Your task to perform on an android device: open app "Nova Launcher" (install if not already installed) Image 0: 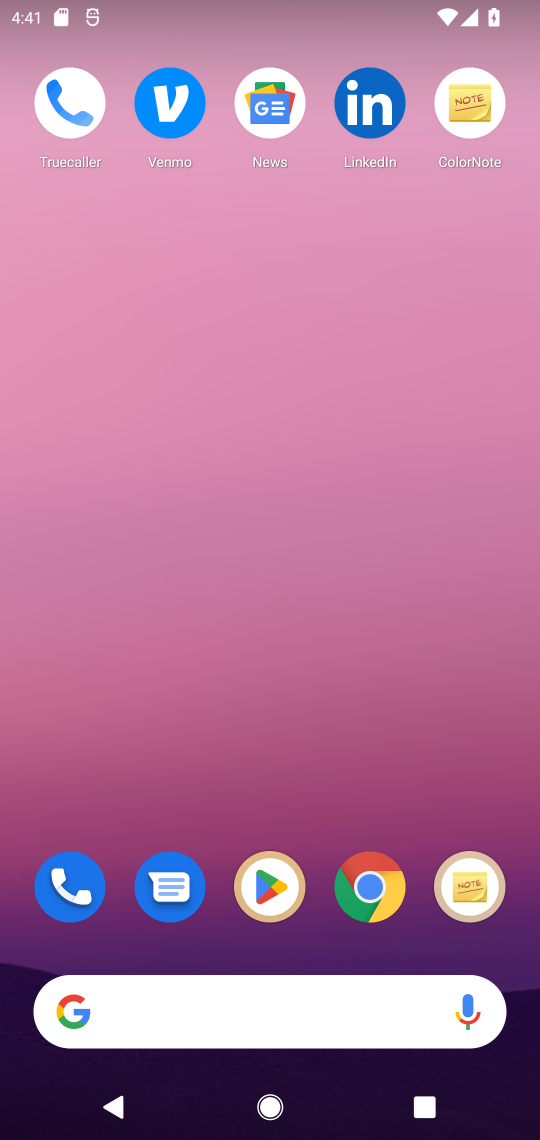
Step 0: click (262, 890)
Your task to perform on an android device: open app "Nova Launcher" (install if not already installed) Image 1: 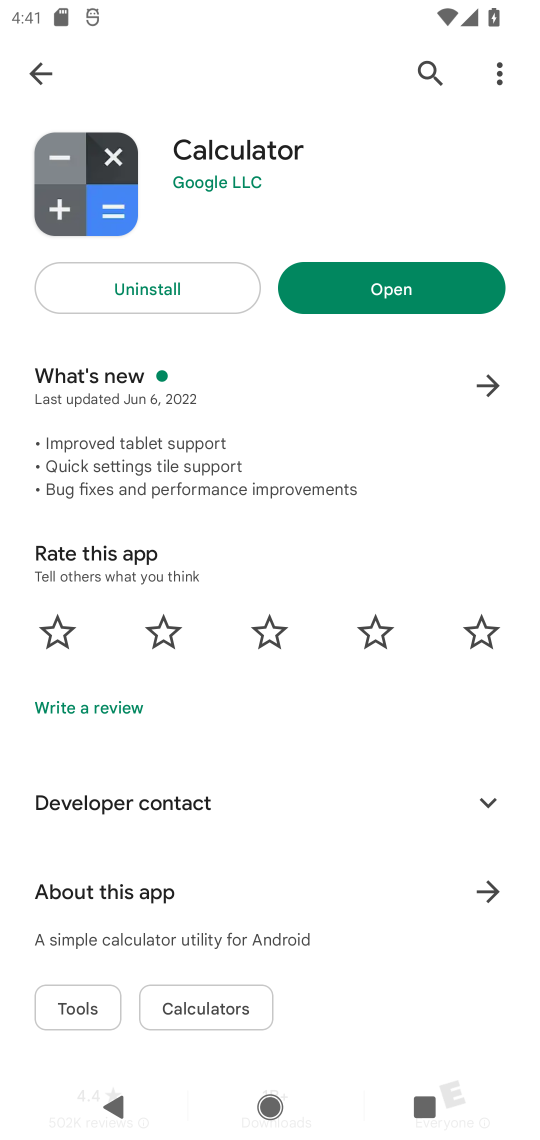
Step 1: click (44, 71)
Your task to perform on an android device: open app "Nova Launcher" (install if not already installed) Image 2: 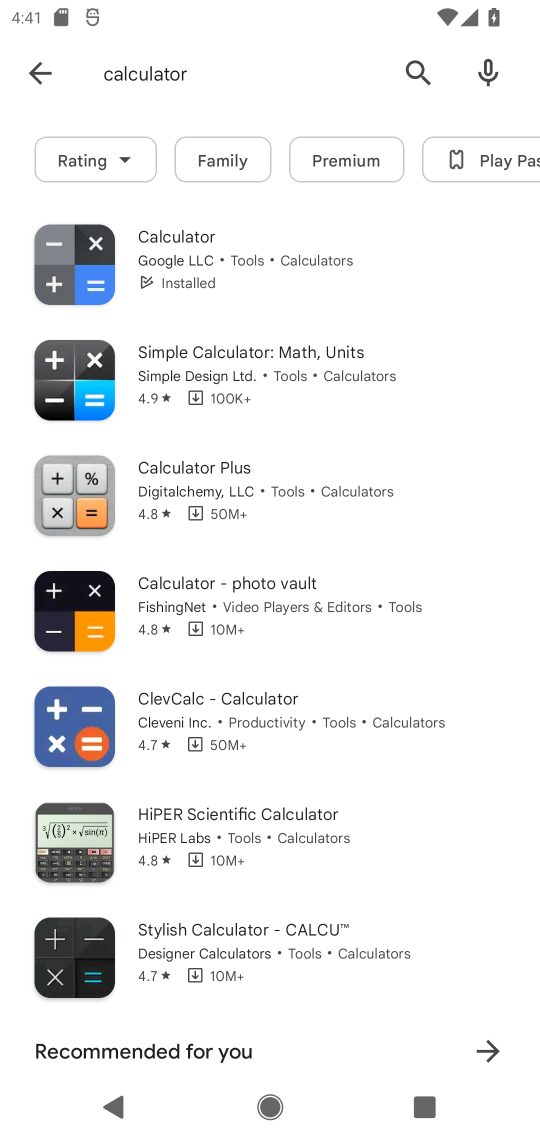
Step 2: click (44, 71)
Your task to perform on an android device: open app "Nova Launcher" (install if not already installed) Image 3: 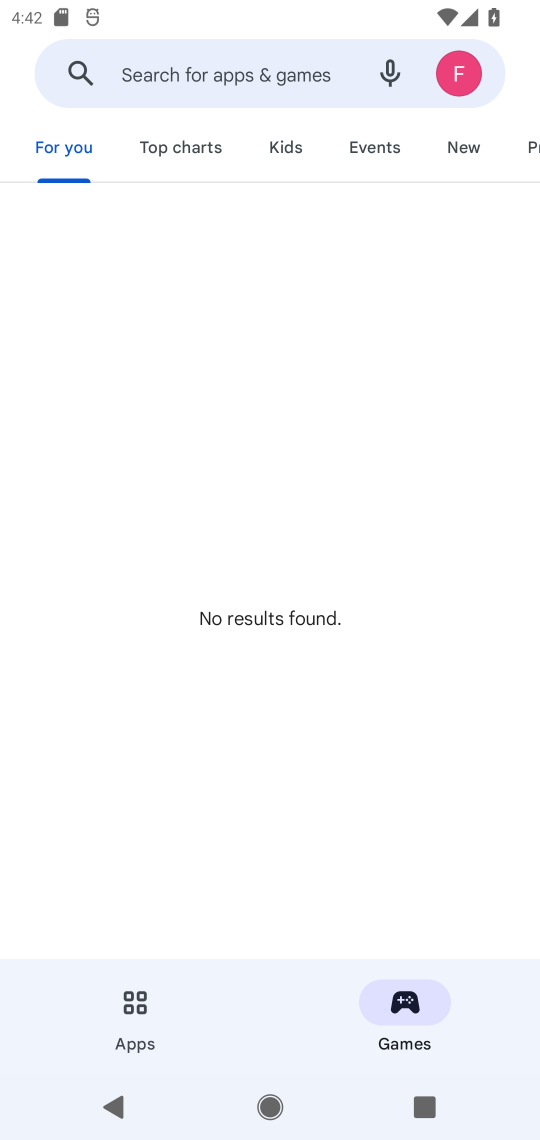
Step 3: click (229, 49)
Your task to perform on an android device: open app "Nova Launcher" (install if not already installed) Image 4: 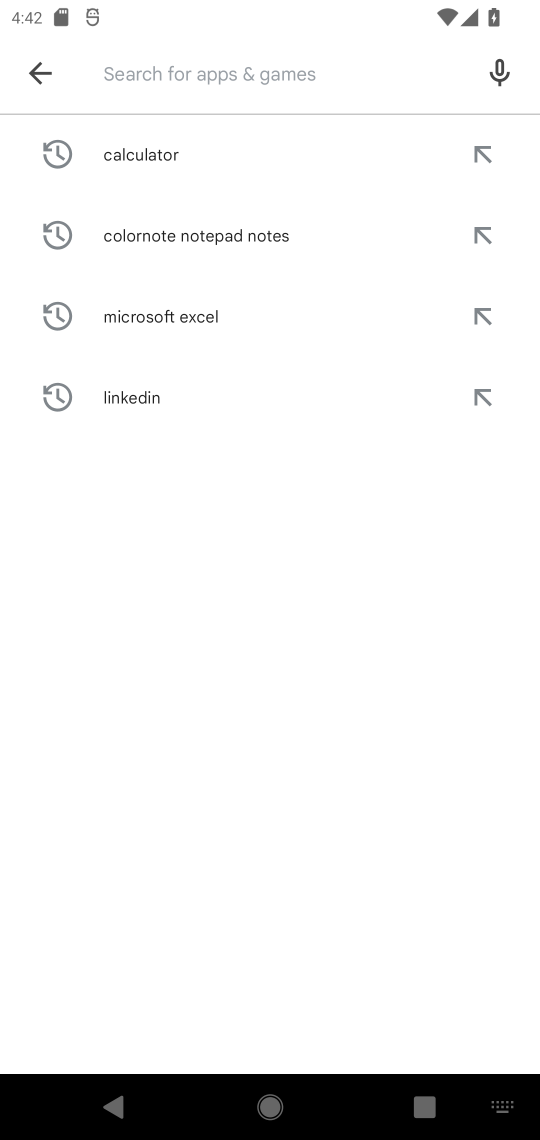
Step 4: type "Nova Launcher"
Your task to perform on an android device: open app "Nova Launcher" (install if not already installed) Image 5: 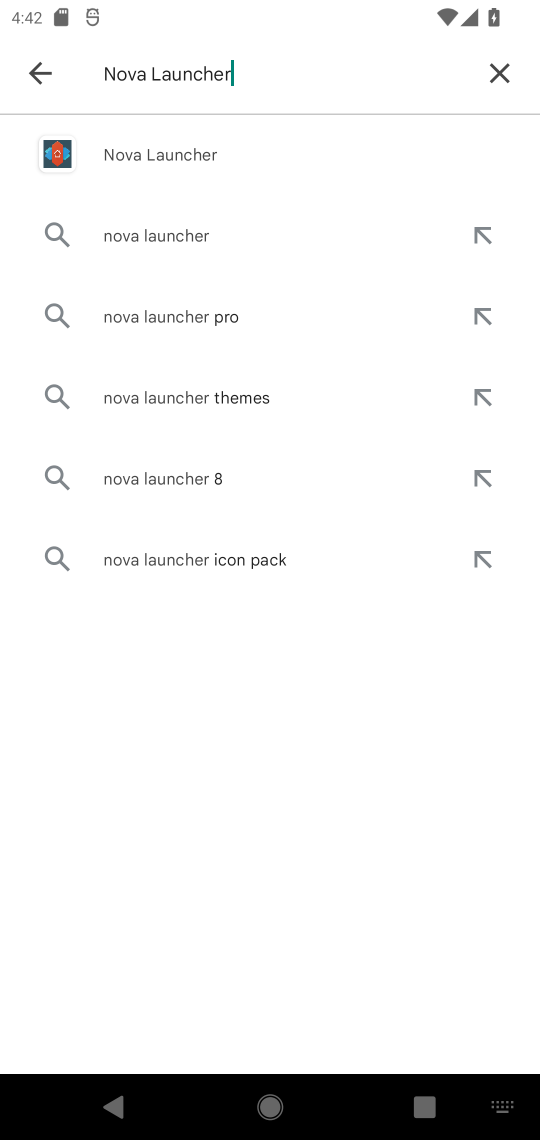
Step 5: click (171, 154)
Your task to perform on an android device: open app "Nova Launcher" (install if not already installed) Image 6: 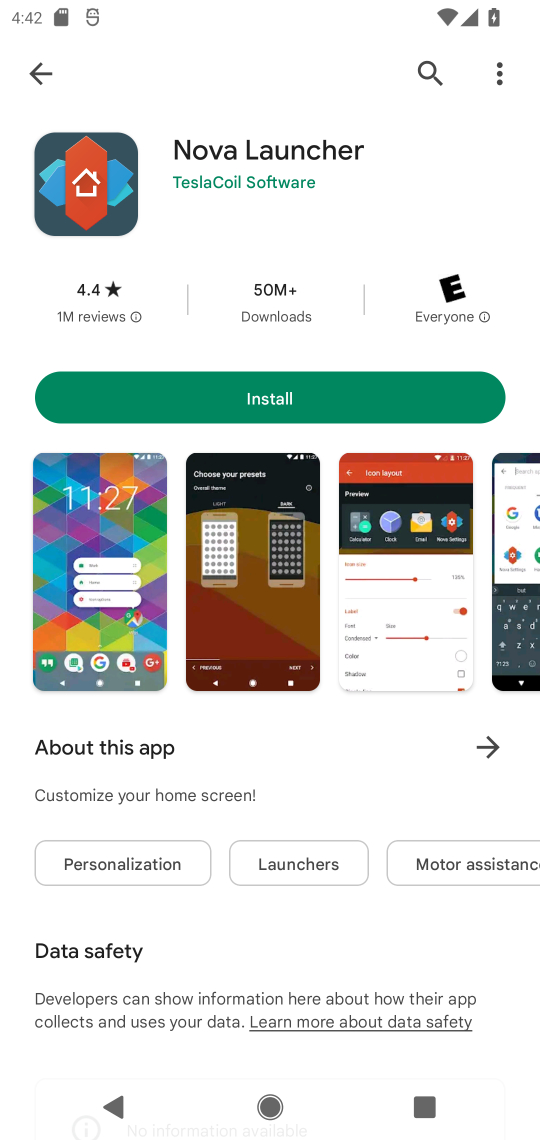
Step 6: click (253, 389)
Your task to perform on an android device: open app "Nova Launcher" (install if not already installed) Image 7: 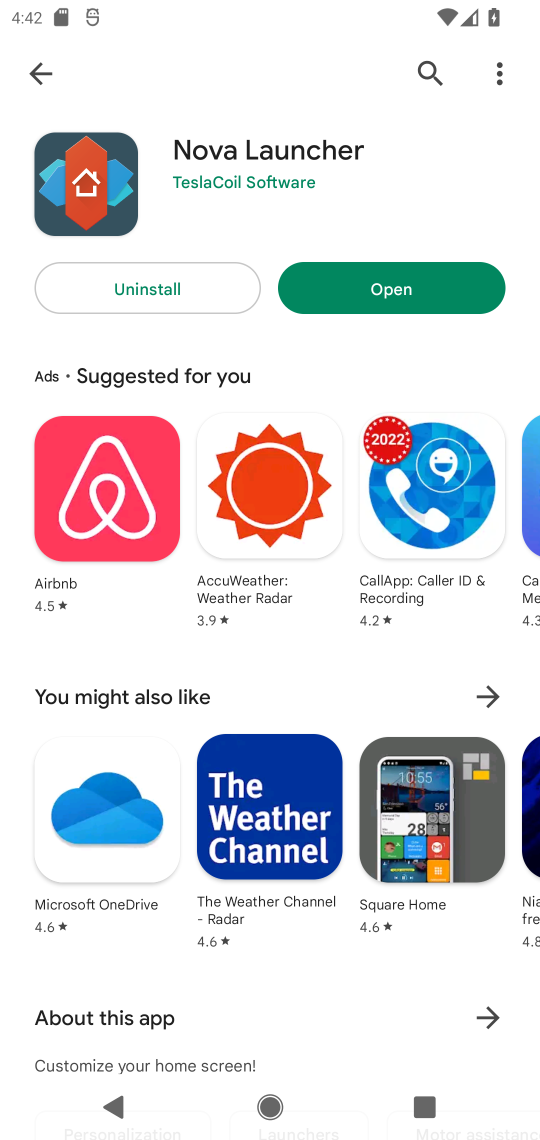
Step 7: click (377, 295)
Your task to perform on an android device: open app "Nova Launcher" (install if not already installed) Image 8: 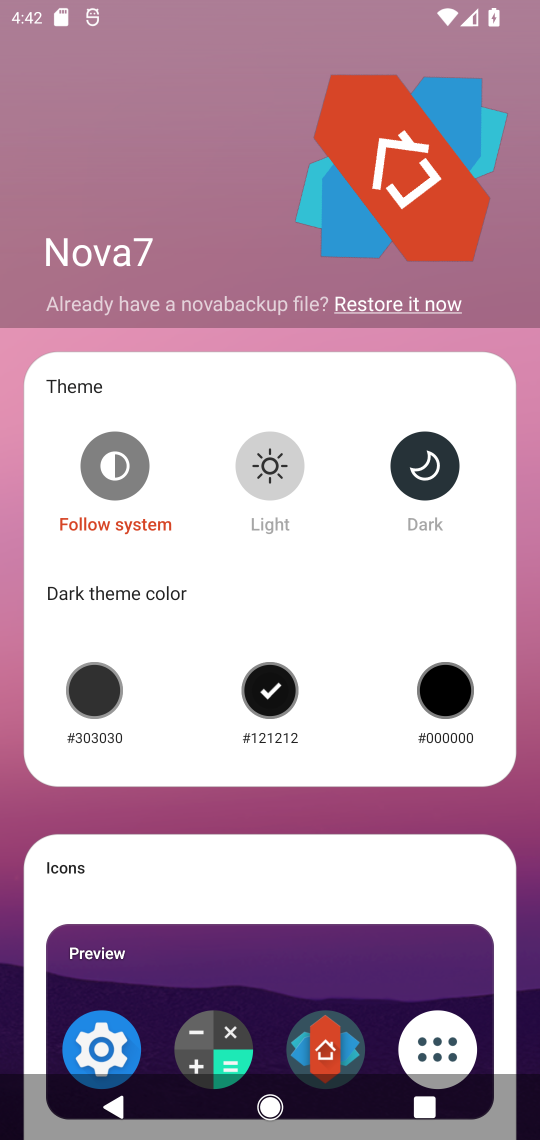
Step 8: task complete